Your task to perform on an android device: turn on location history Image 0: 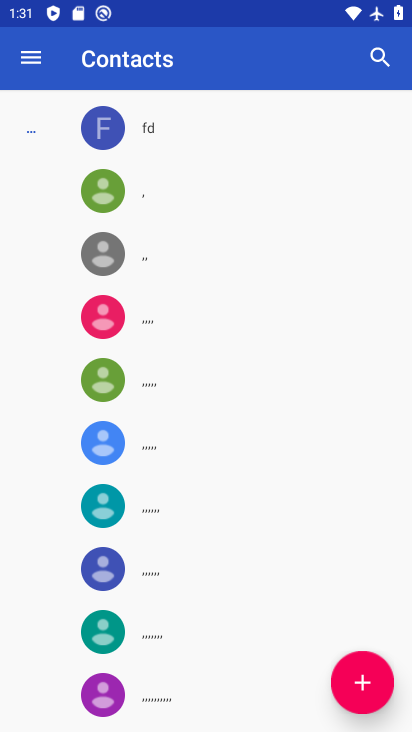
Step 0: press home button
Your task to perform on an android device: turn on location history Image 1: 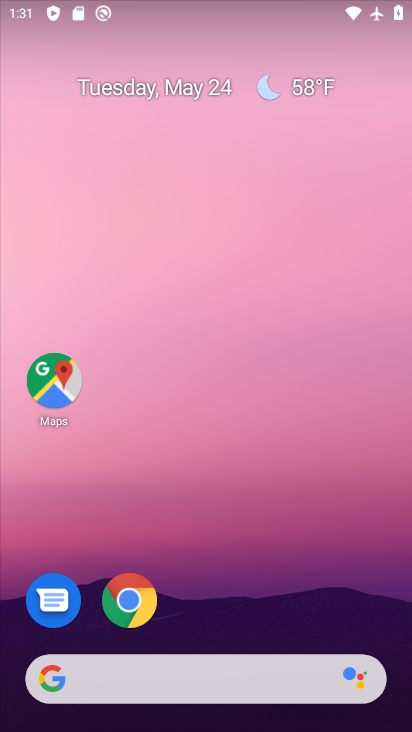
Step 1: drag from (254, 506) to (126, 18)
Your task to perform on an android device: turn on location history Image 2: 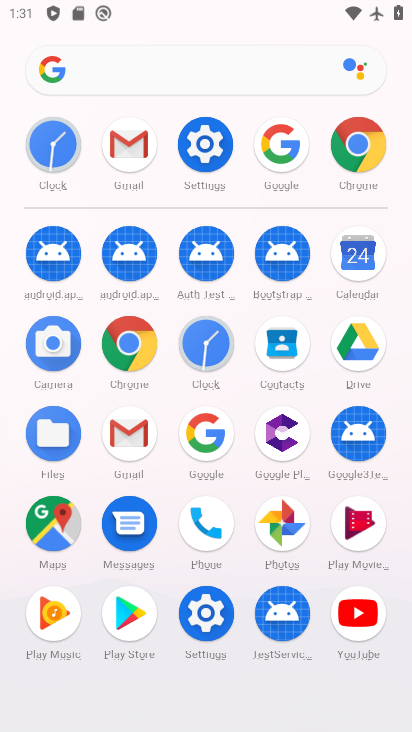
Step 2: click (201, 143)
Your task to perform on an android device: turn on location history Image 3: 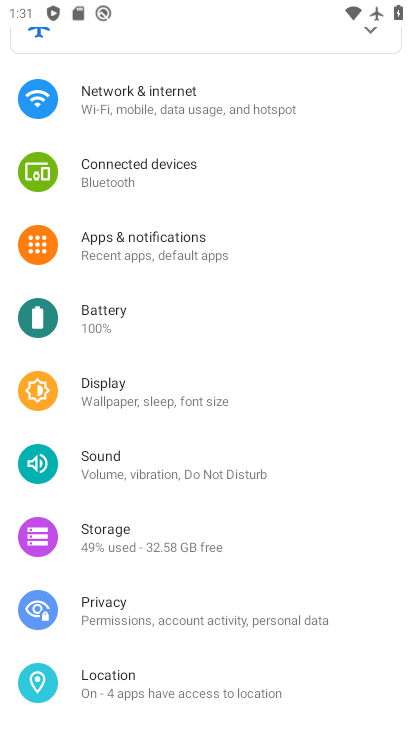
Step 3: click (191, 676)
Your task to perform on an android device: turn on location history Image 4: 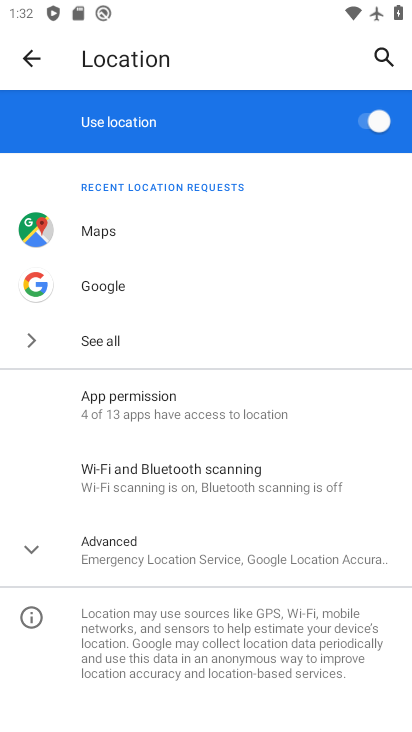
Step 4: click (219, 551)
Your task to perform on an android device: turn on location history Image 5: 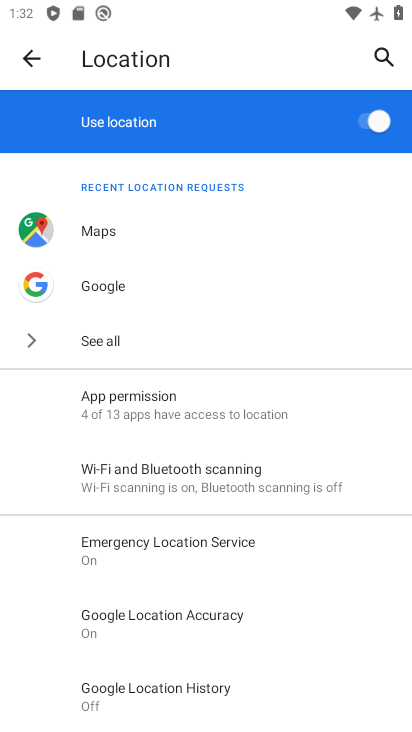
Step 5: click (233, 692)
Your task to perform on an android device: turn on location history Image 6: 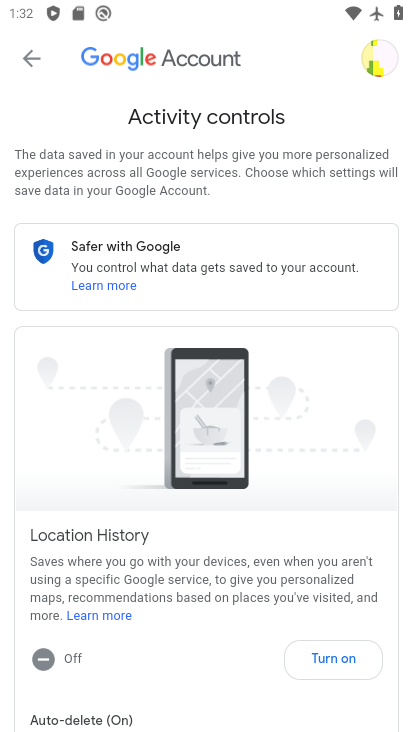
Step 6: click (353, 649)
Your task to perform on an android device: turn on location history Image 7: 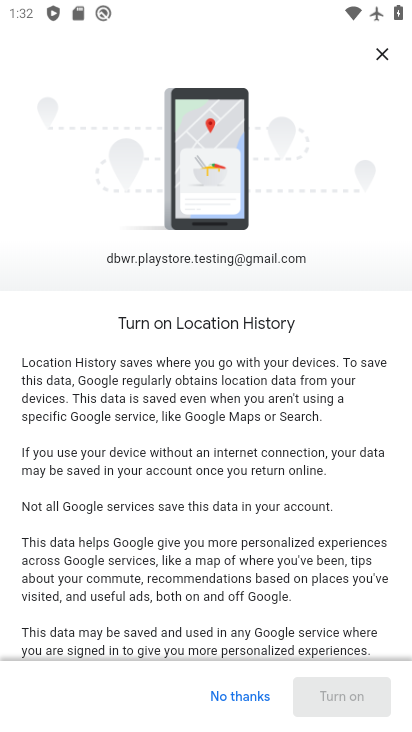
Step 7: drag from (255, 606) to (227, 113)
Your task to perform on an android device: turn on location history Image 8: 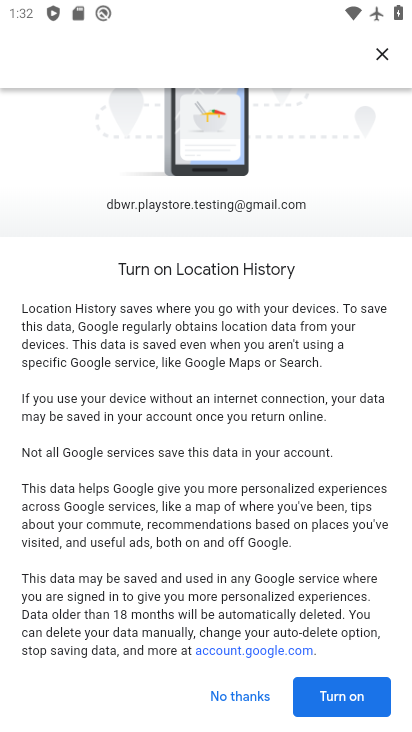
Step 8: click (348, 687)
Your task to perform on an android device: turn on location history Image 9: 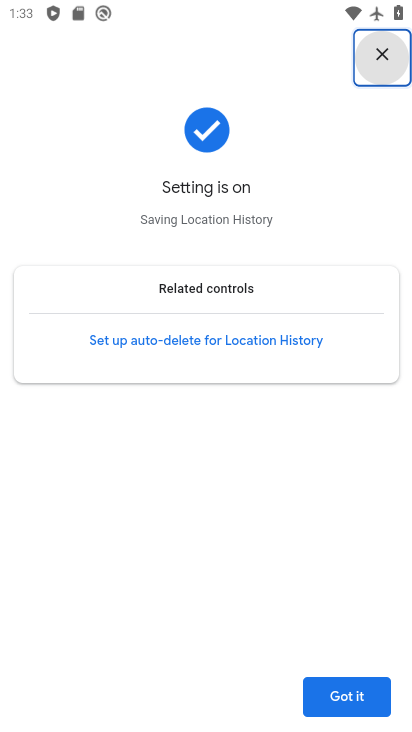
Step 9: click (342, 700)
Your task to perform on an android device: turn on location history Image 10: 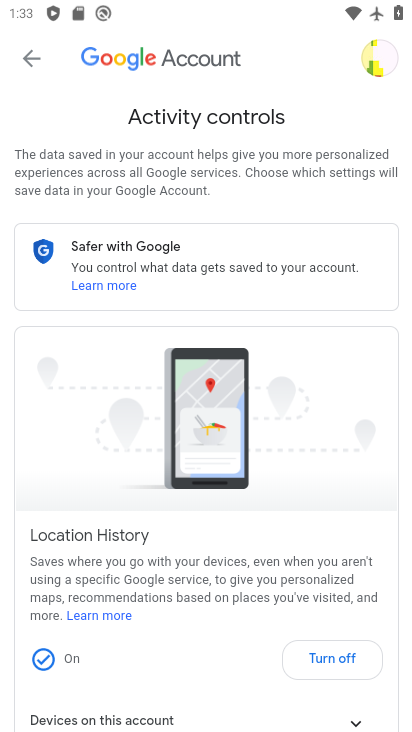
Step 10: task complete